Your task to perform on an android device: turn off wifi Image 0: 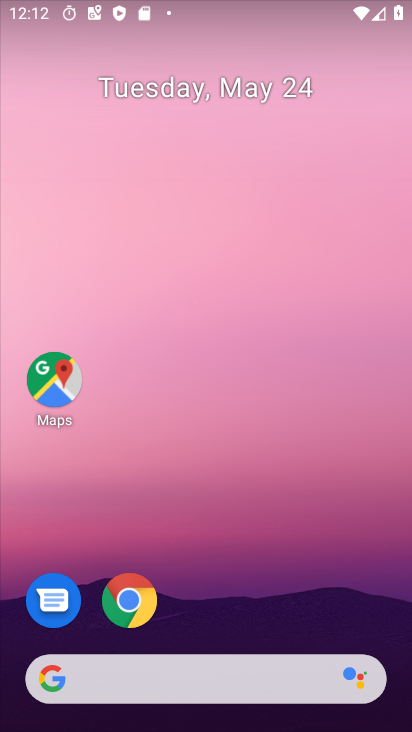
Step 0: drag from (206, 618) to (231, 144)
Your task to perform on an android device: turn off wifi Image 1: 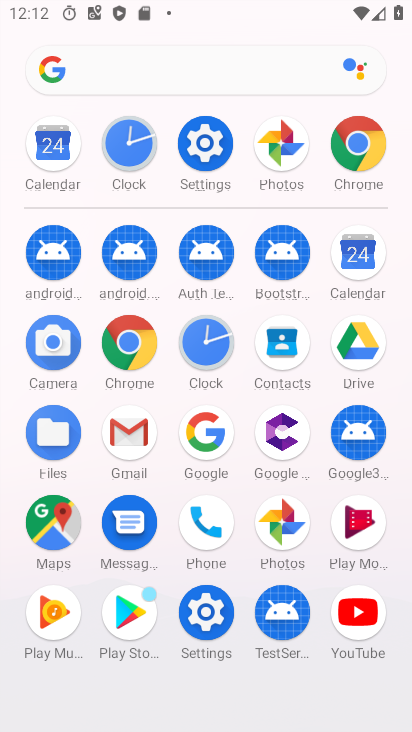
Step 1: click (218, 134)
Your task to perform on an android device: turn off wifi Image 2: 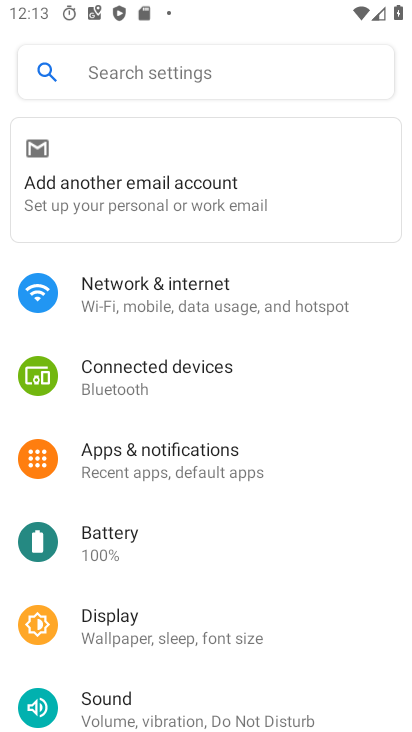
Step 2: click (159, 279)
Your task to perform on an android device: turn off wifi Image 3: 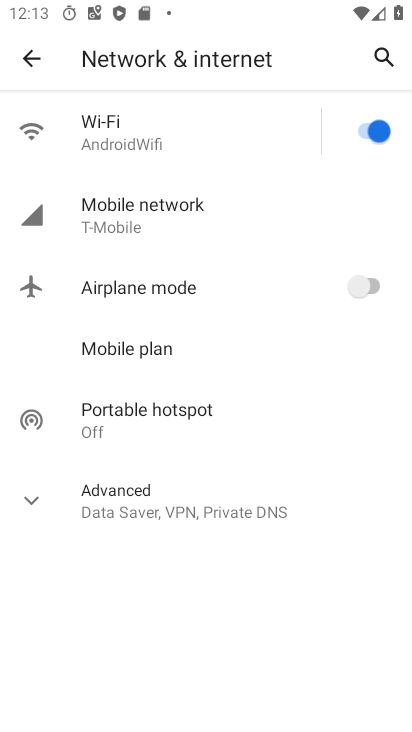
Step 3: click (378, 122)
Your task to perform on an android device: turn off wifi Image 4: 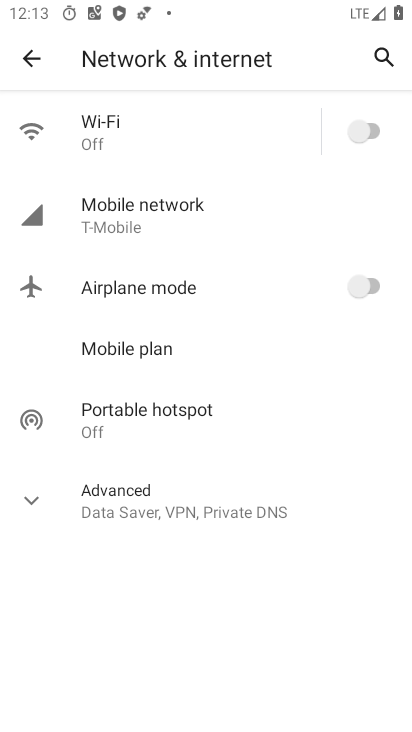
Step 4: task complete